Your task to perform on an android device: What's the weather today? Image 0: 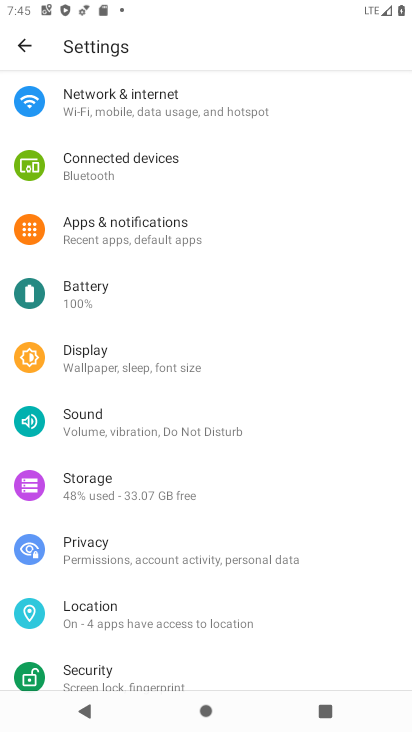
Step 0: press back button
Your task to perform on an android device: What's the weather today? Image 1: 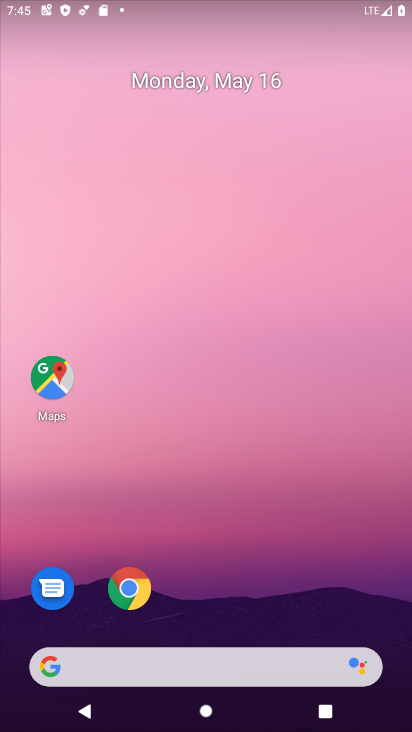
Step 1: drag from (247, 559) to (228, 22)
Your task to perform on an android device: What's the weather today? Image 2: 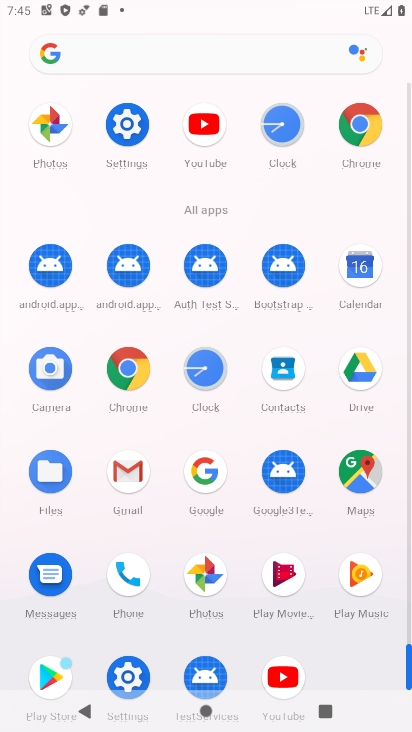
Step 2: click (127, 365)
Your task to perform on an android device: What's the weather today? Image 3: 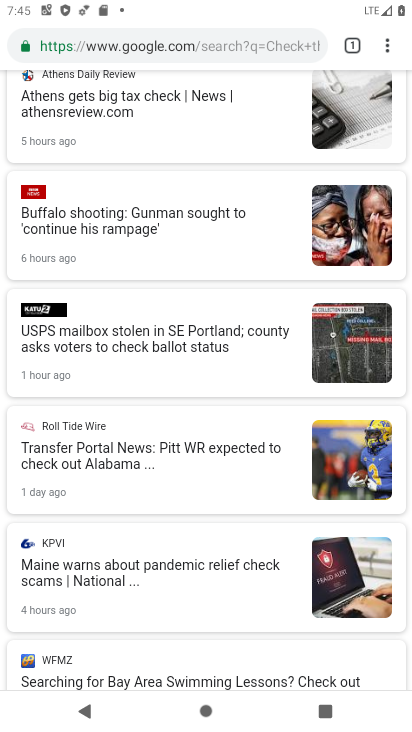
Step 3: click (164, 50)
Your task to perform on an android device: What's the weather today? Image 4: 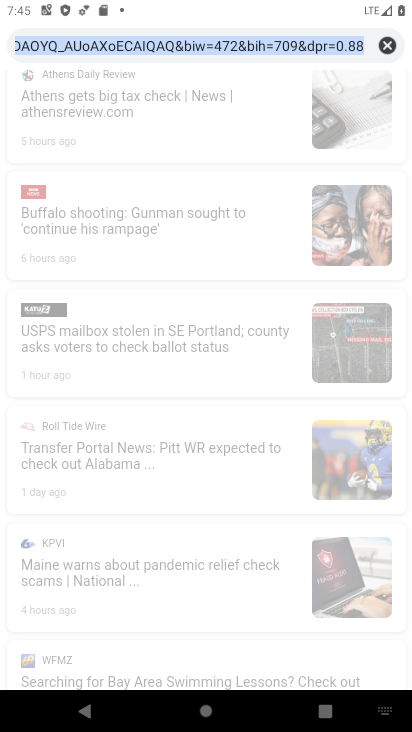
Step 4: click (381, 37)
Your task to perform on an android device: What's the weather today? Image 5: 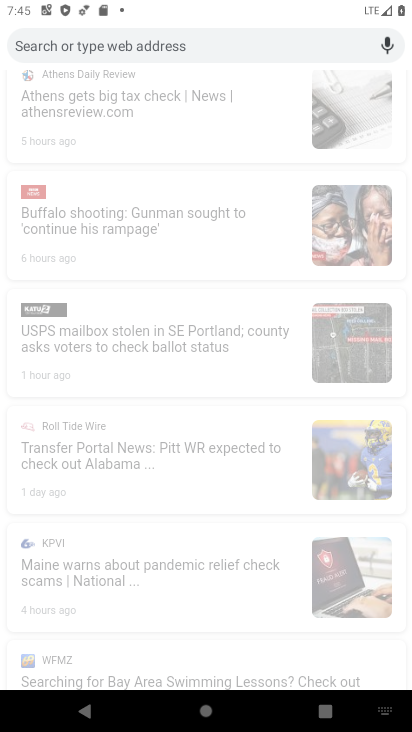
Step 5: type "What's the weather today?"
Your task to perform on an android device: What's the weather today? Image 6: 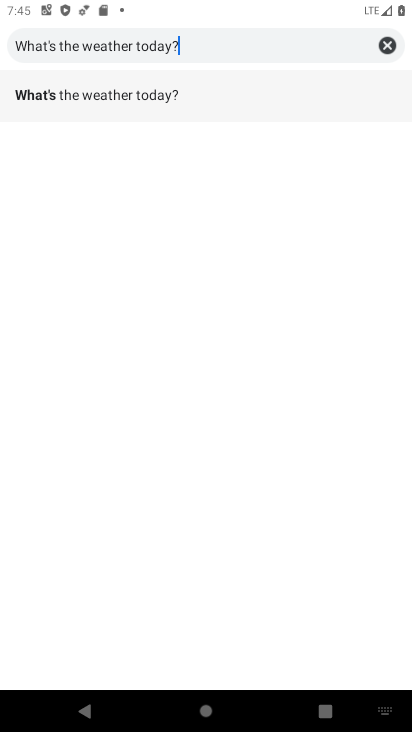
Step 6: type ""
Your task to perform on an android device: What's the weather today? Image 7: 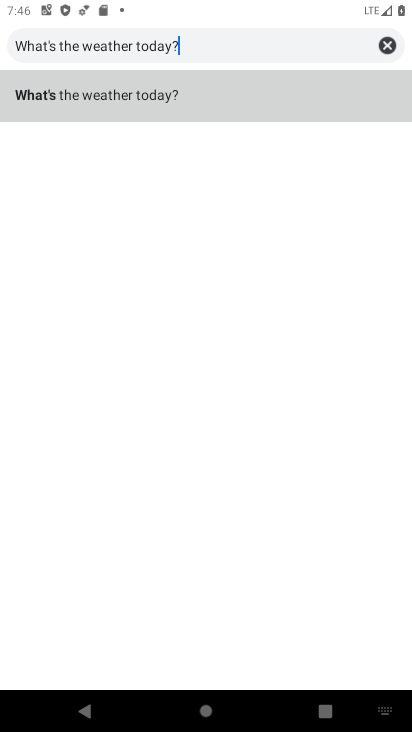
Step 7: click (134, 88)
Your task to perform on an android device: What's the weather today? Image 8: 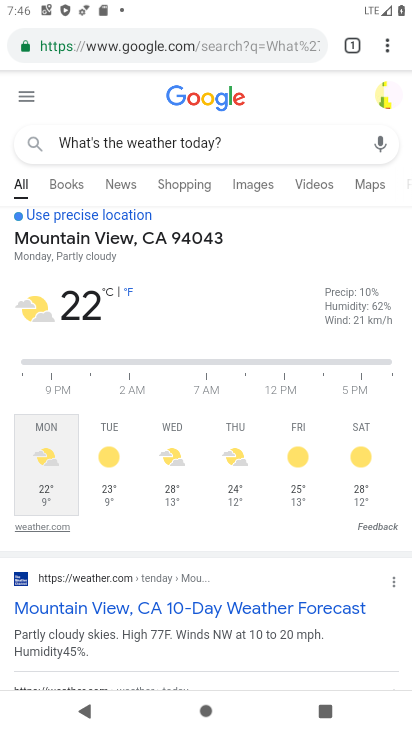
Step 8: task complete